Your task to perform on an android device: Go to CNN.com Image 0: 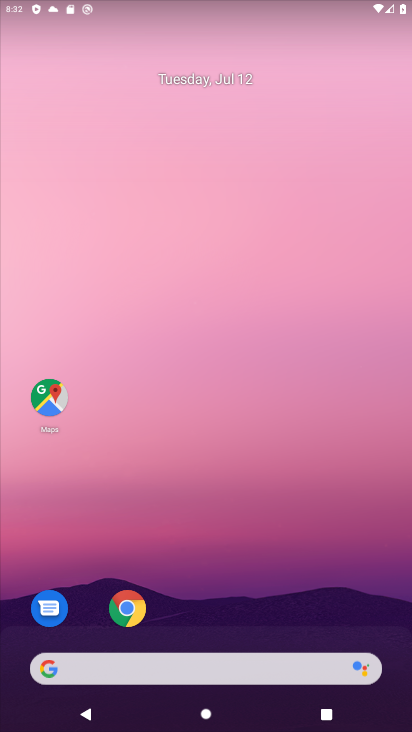
Step 0: click (131, 590)
Your task to perform on an android device: Go to CNN.com Image 1: 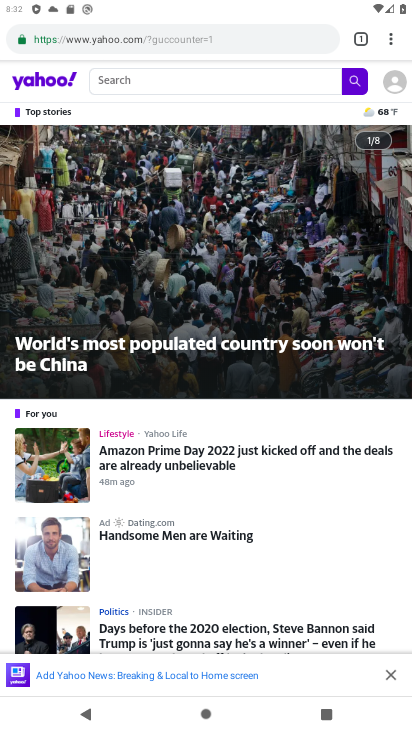
Step 1: click (158, 47)
Your task to perform on an android device: Go to CNN.com Image 2: 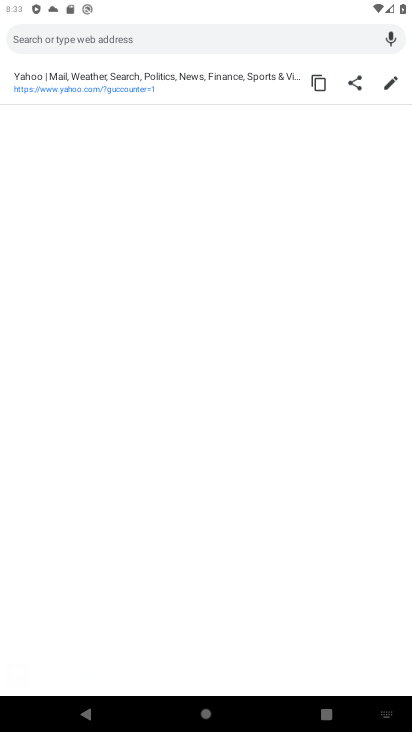
Step 2: type "CNN.com"
Your task to perform on an android device: Go to CNN.com Image 3: 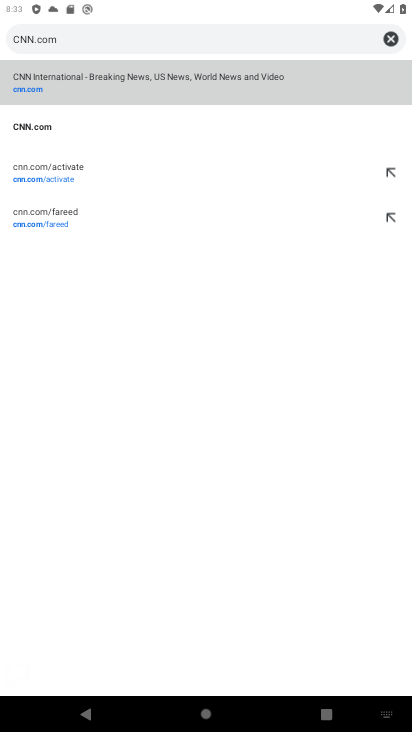
Step 3: click (89, 126)
Your task to perform on an android device: Go to CNN.com Image 4: 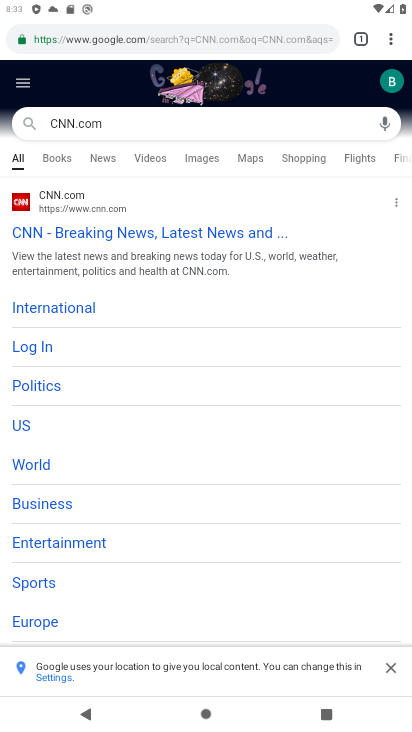
Step 4: click (99, 225)
Your task to perform on an android device: Go to CNN.com Image 5: 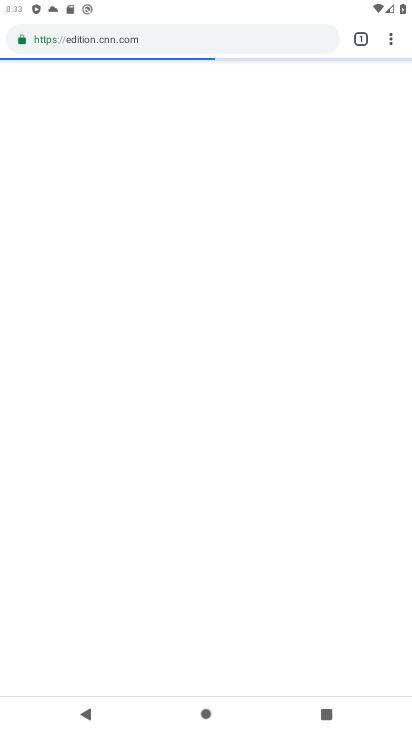
Step 5: click (109, 234)
Your task to perform on an android device: Go to CNN.com Image 6: 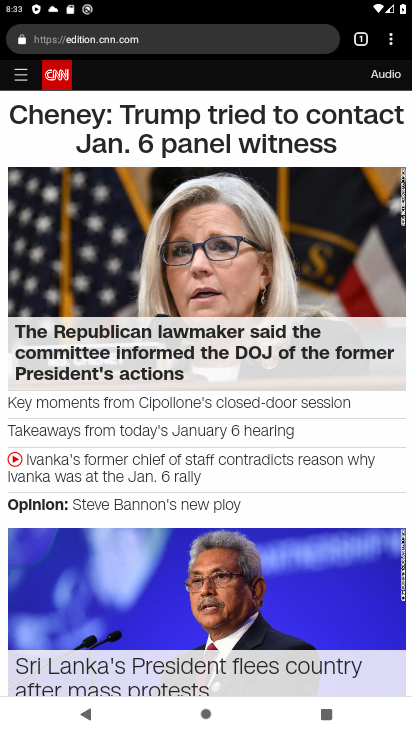
Step 6: task complete